Your task to perform on an android device: Show me the alarms in the clock app Image 0: 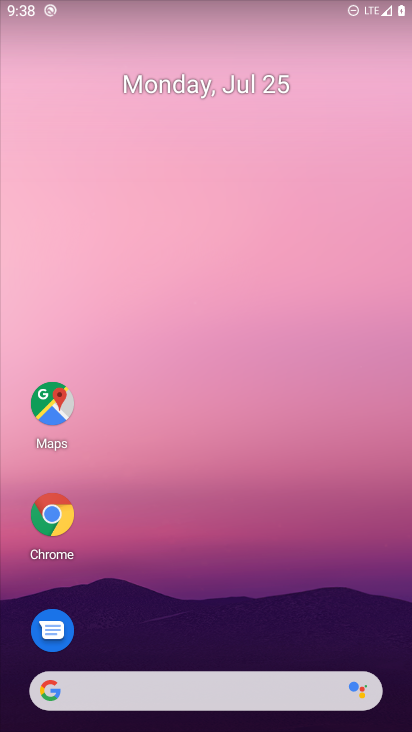
Step 0: drag from (44, 624) to (249, 60)
Your task to perform on an android device: Show me the alarms in the clock app Image 1: 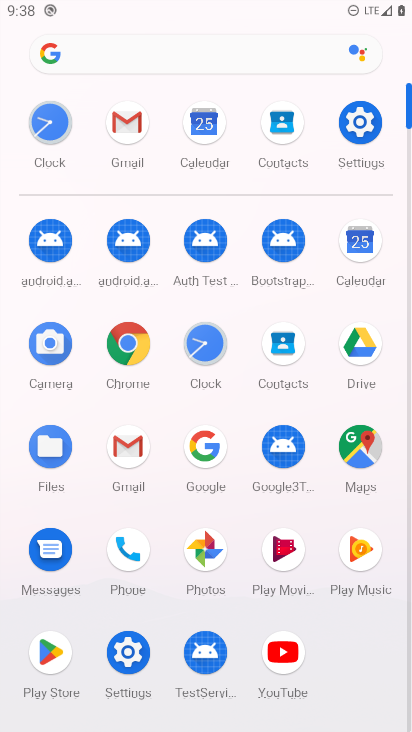
Step 1: click (206, 356)
Your task to perform on an android device: Show me the alarms in the clock app Image 2: 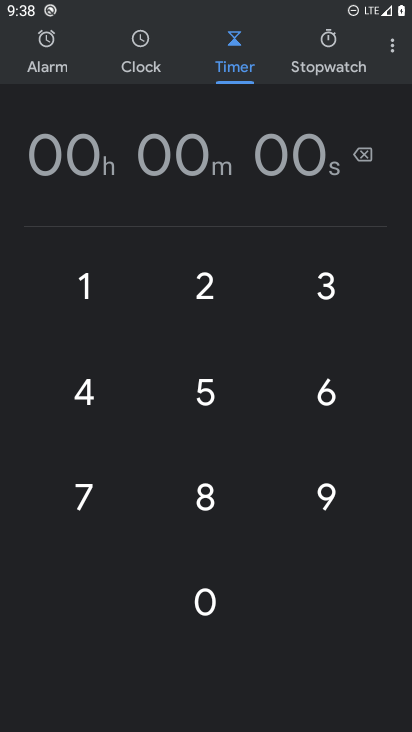
Step 2: click (53, 57)
Your task to perform on an android device: Show me the alarms in the clock app Image 3: 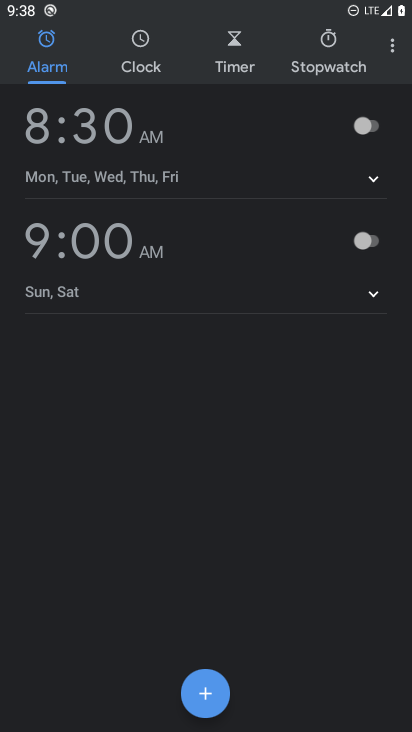
Step 3: task complete